Your task to perform on an android device: Go to wifi settings Image 0: 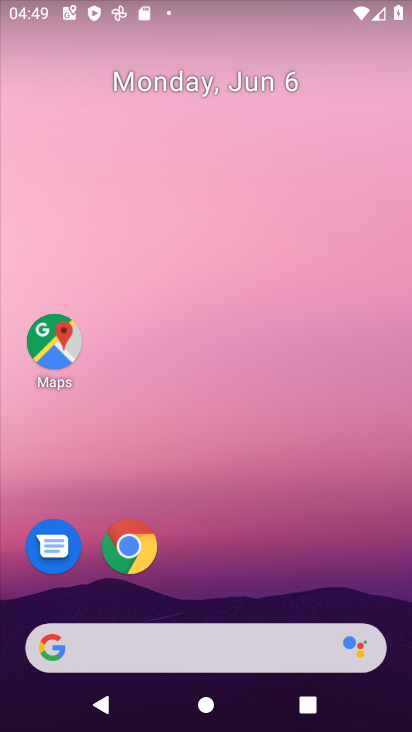
Step 0: drag from (287, 570) to (298, 117)
Your task to perform on an android device: Go to wifi settings Image 1: 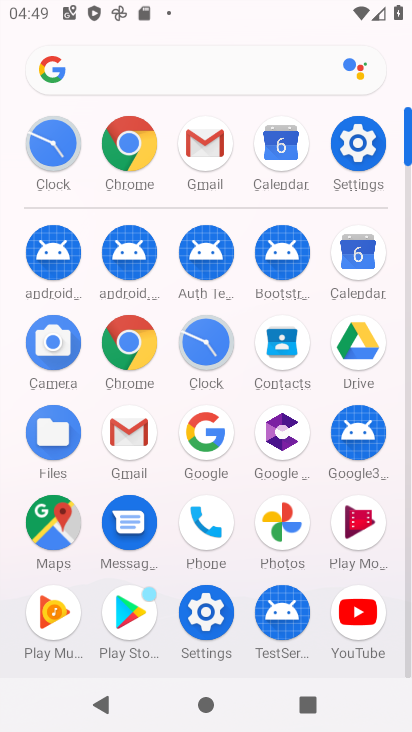
Step 1: click (355, 161)
Your task to perform on an android device: Go to wifi settings Image 2: 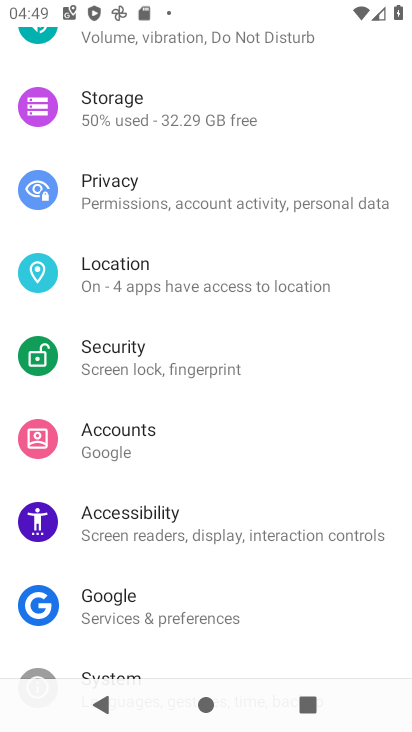
Step 2: task complete